Your task to perform on an android device: What's the weather? Image 0: 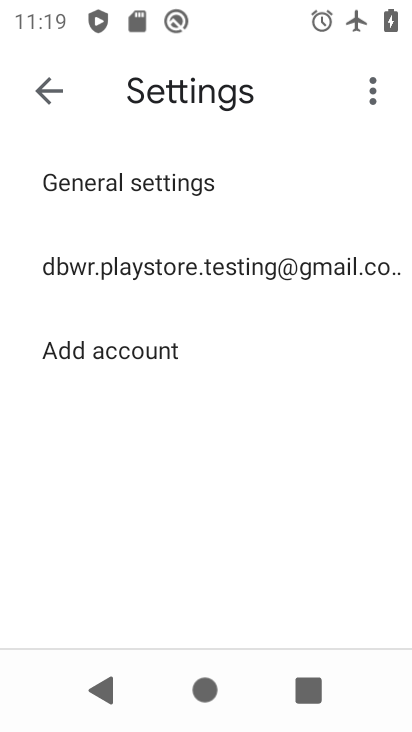
Step 0: press home button
Your task to perform on an android device: What's the weather? Image 1: 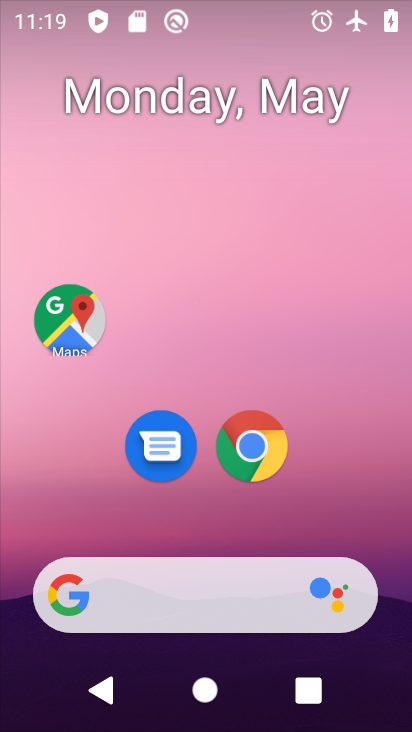
Step 1: click (242, 459)
Your task to perform on an android device: What's the weather? Image 2: 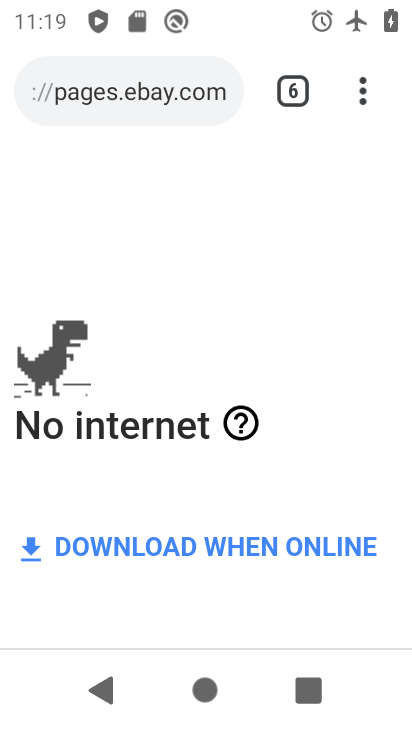
Step 2: click (287, 110)
Your task to perform on an android device: What's the weather? Image 3: 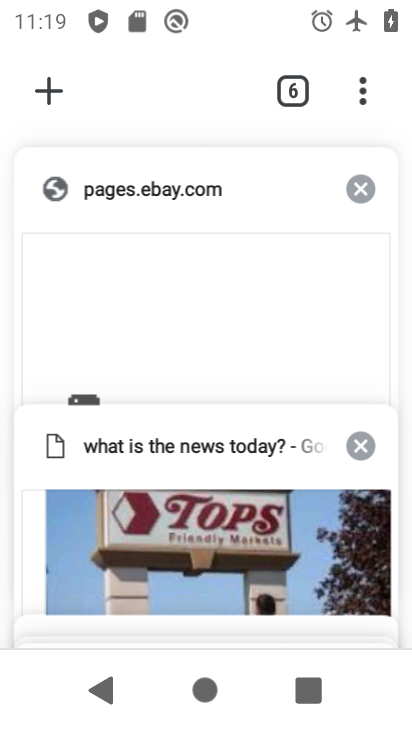
Step 3: drag from (240, 488) to (229, 230)
Your task to perform on an android device: What's the weather? Image 4: 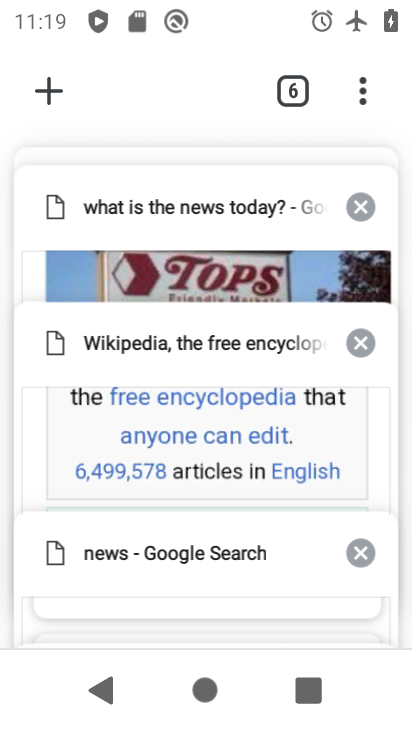
Step 4: drag from (214, 520) to (227, 198)
Your task to perform on an android device: What's the weather? Image 5: 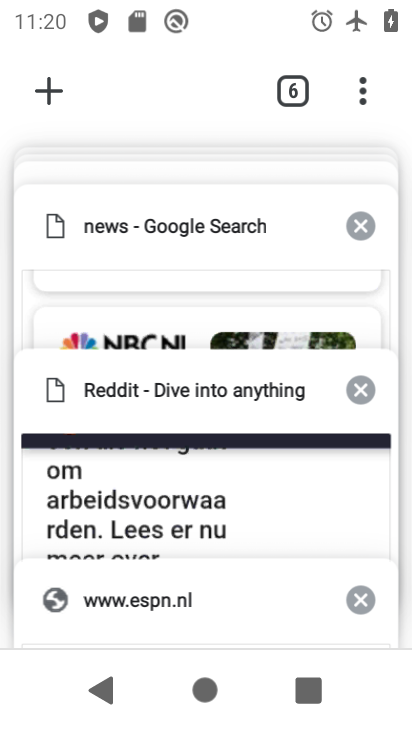
Step 5: drag from (155, 564) to (235, 173)
Your task to perform on an android device: What's the weather? Image 6: 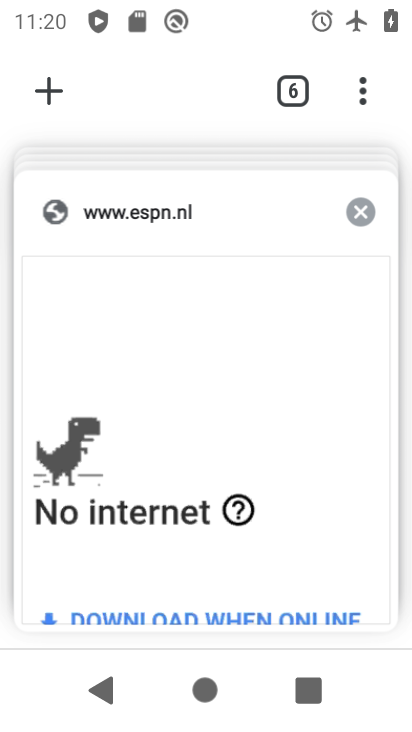
Step 6: click (40, 91)
Your task to perform on an android device: What's the weather? Image 7: 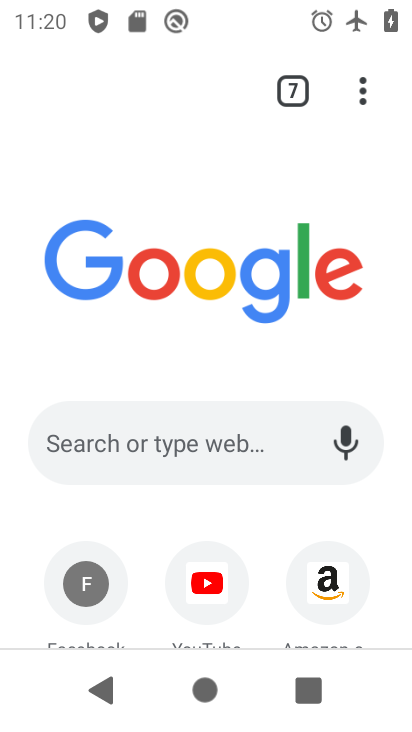
Step 7: click (112, 437)
Your task to perform on an android device: What's the weather? Image 8: 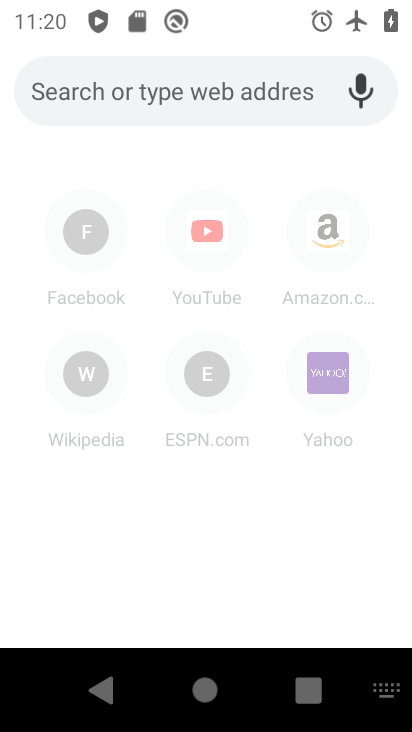
Step 8: type "what's the weather"
Your task to perform on an android device: What's the weather? Image 9: 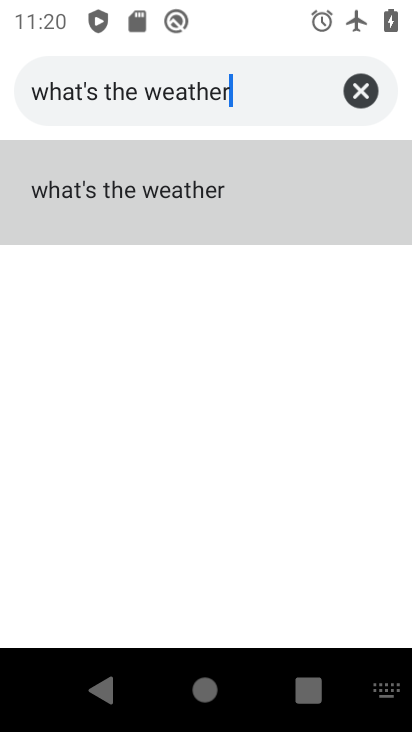
Step 9: click (217, 194)
Your task to perform on an android device: What's the weather? Image 10: 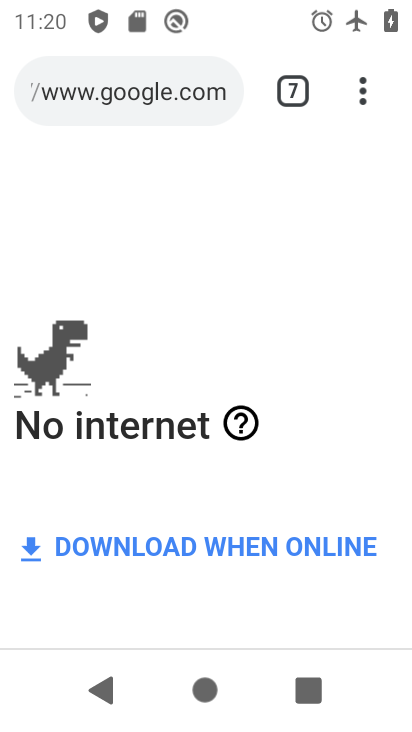
Step 10: task complete